Your task to perform on an android device: Is it going to rain tomorrow? Image 0: 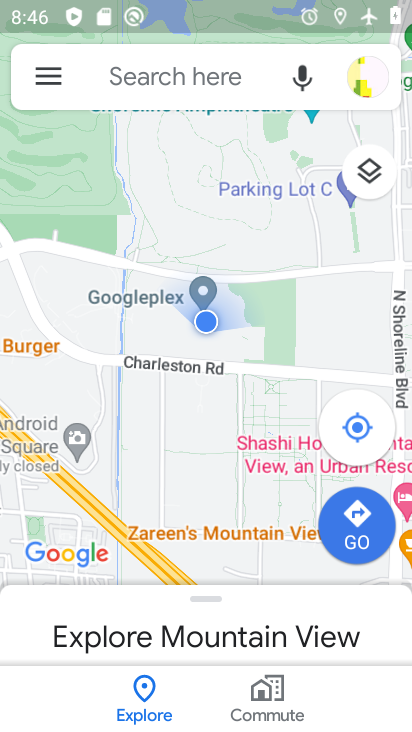
Step 0: press home button
Your task to perform on an android device: Is it going to rain tomorrow? Image 1: 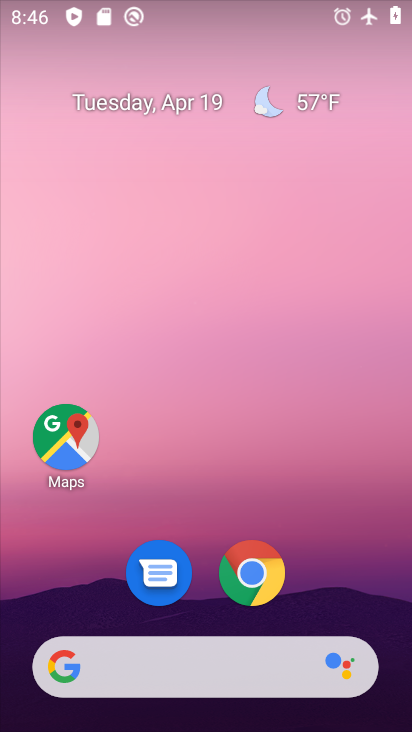
Step 1: drag from (299, 559) to (212, 114)
Your task to perform on an android device: Is it going to rain tomorrow? Image 2: 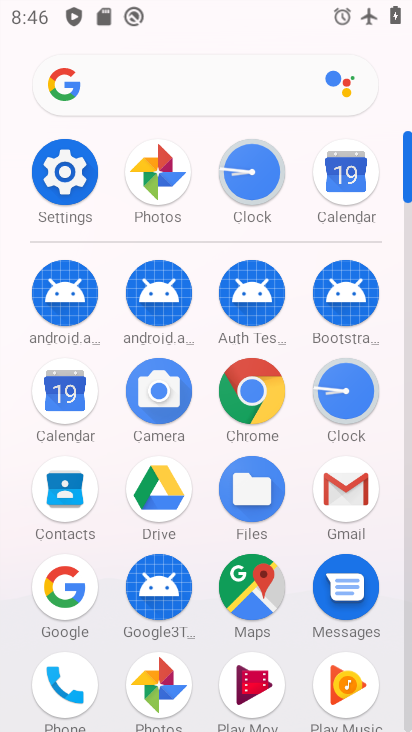
Step 2: press back button
Your task to perform on an android device: Is it going to rain tomorrow? Image 3: 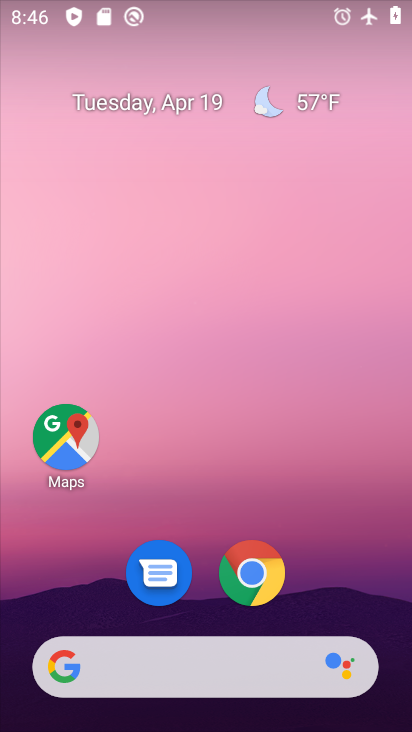
Step 3: click (306, 102)
Your task to perform on an android device: Is it going to rain tomorrow? Image 4: 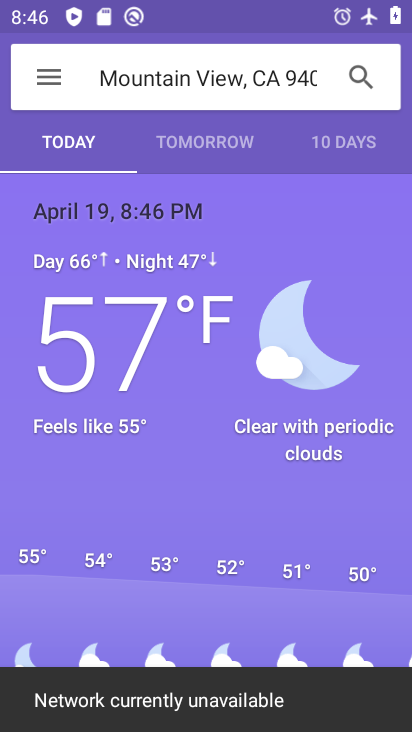
Step 4: click (214, 144)
Your task to perform on an android device: Is it going to rain tomorrow? Image 5: 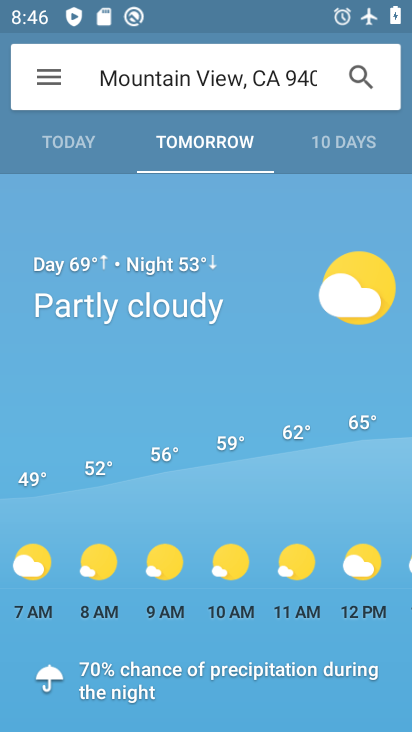
Step 5: task complete